Your task to perform on an android device: Open Youtube and go to the subscriptions tab Image 0: 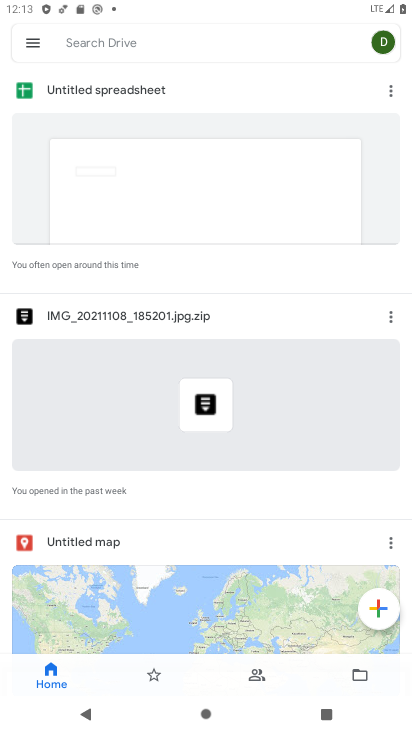
Step 0: press home button
Your task to perform on an android device: Open Youtube and go to the subscriptions tab Image 1: 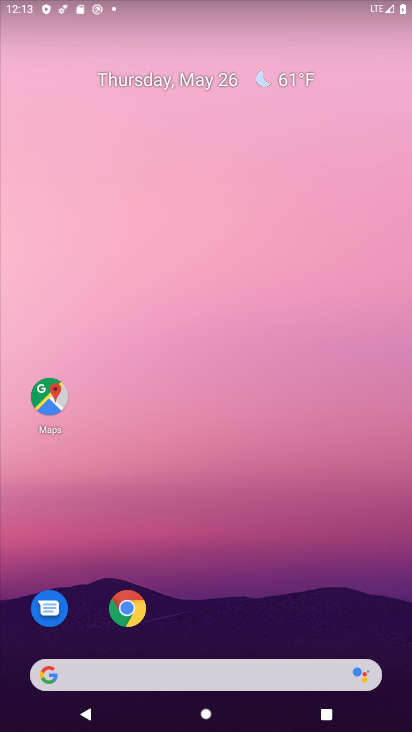
Step 1: drag from (377, 612) to (321, 100)
Your task to perform on an android device: Open Youtube and go to the subscriptions tab Image 2: 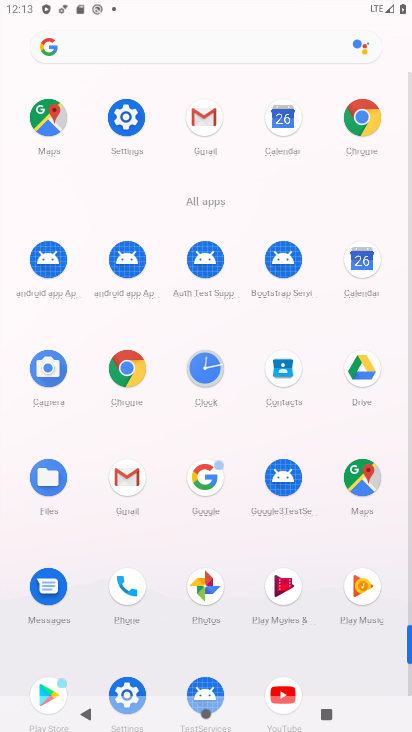
Step 2: click (282, 686)
Your task to perform on an android device: Open Youtube and go to the subscriptions tab Image 3: 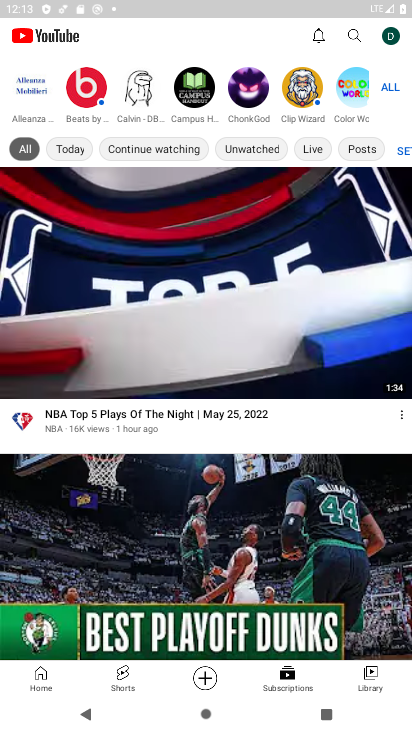
Step 3: task complete